Your task to perform on an android device: open the mobile data screen to see how much data has been used Image 0: 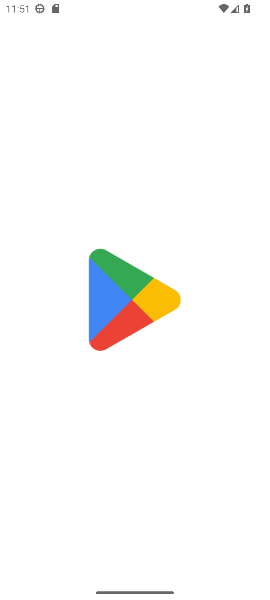
Step 0: press home button
Your task to perform on an android device: open the mobile data screen to see how much data has been used Image 1: 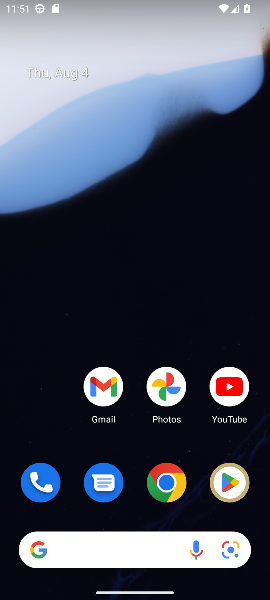
Step 1: drag from (130, 497) to (130, 227)
Your task to perform on an android device: open the mobile data screen to see how much data has been used Image 2: 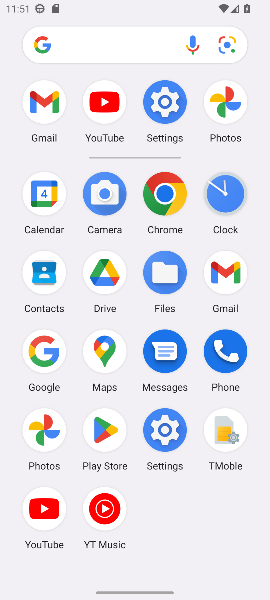
Step 2: click (173, 114)
Your task to perform on an android device: open the mobile data screen to see how much data has been used Image 3: 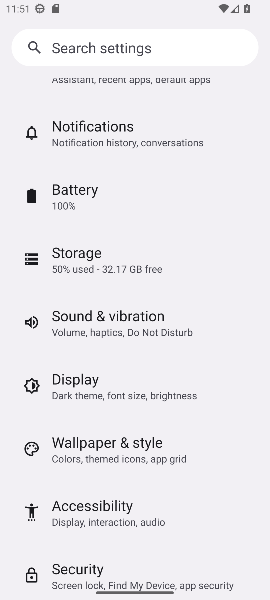
Step 3: drag from (138, 168) to (136, 425)
Your task to perform on an android device: open the mobile data screen to see how much data has been used Image 4: 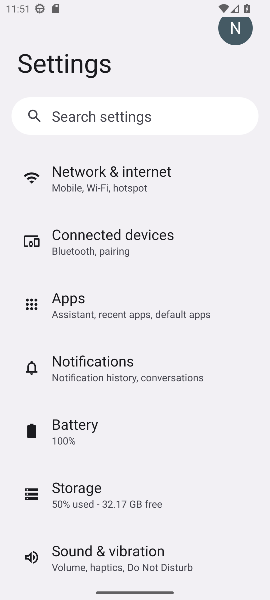
Step 4: click (86, 181)
Your task to perform on an android device: open the mobile data screen to see how much data has been used Image 5: 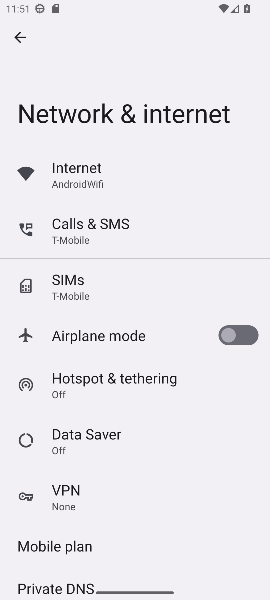
Step 5: click (101, 174)
Your task to perform on an android device: open the mobile data screen to see how much data has been used Image 6: 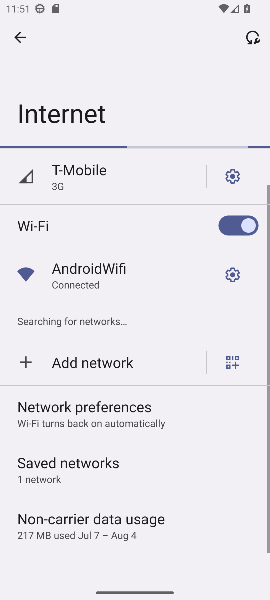
Step 6: task complete